Your task to perform on an android device: turn on the 24-hour format for clock Image 0: 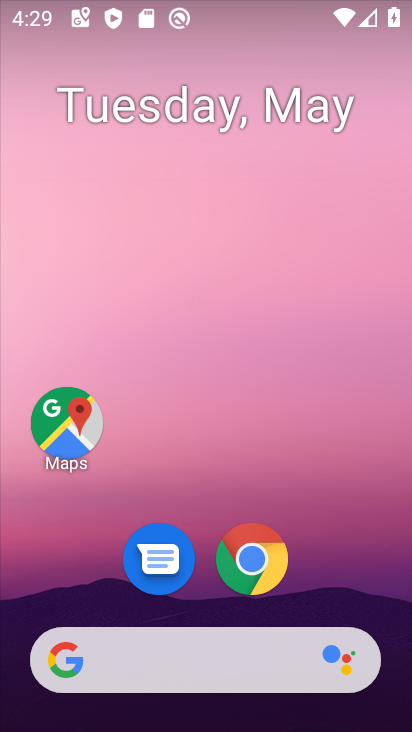
Step 0: drag from (318, 548) to (303, 25)
Your task to perform on an android device: turn on the 24-hour format for clock Image 1: 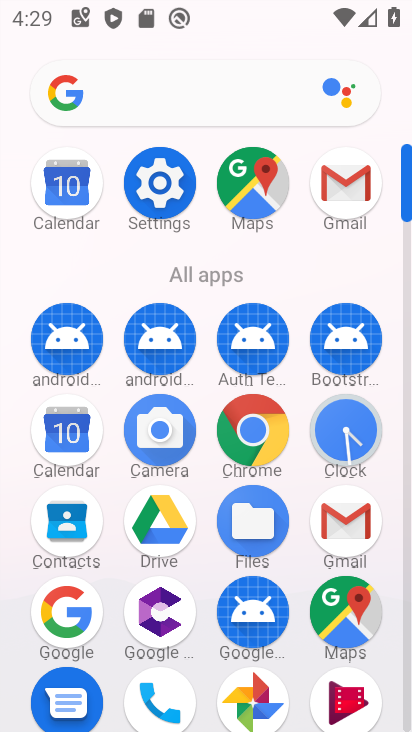
Step 1: click (360, 434)
Your task to perform on an android device: turn on the 24-hour format for clock Image 2: 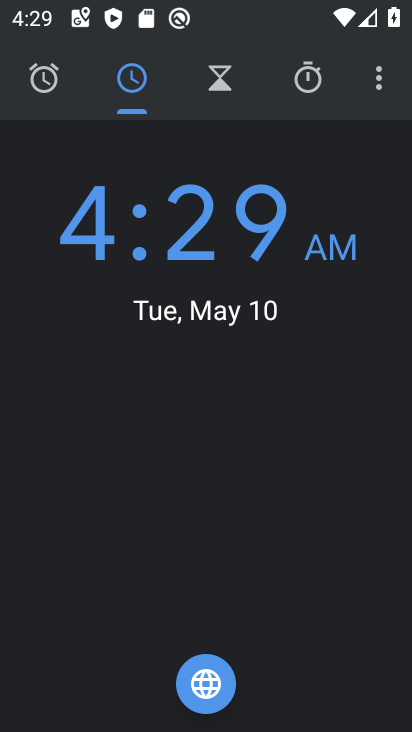
Step 2: click (373, 78)
Your task to perform on an android device: turn on the 24-hour format for clock Image 3: 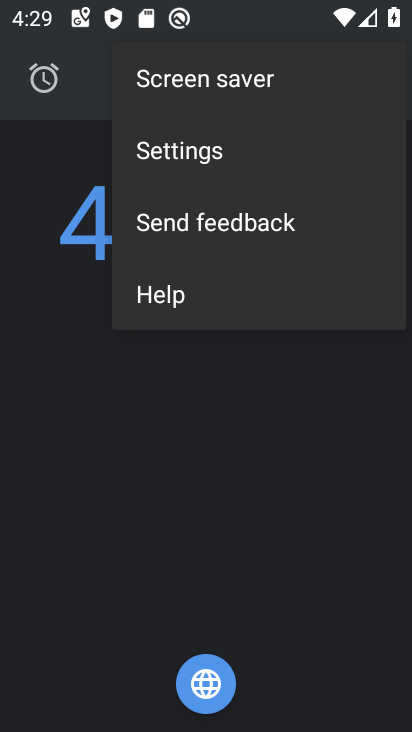
Step 3: click (213, 160)
Your task to perform on an android device: turn on the 24-hour format for clock Image 4: 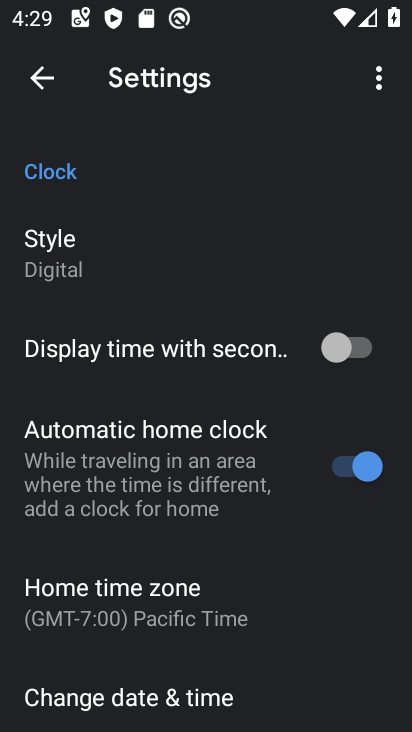
Step 4: drag from (193, 650) to (177, 285)
Your task to perform on an android device: turn on the 24-hour format for clock Image 5: 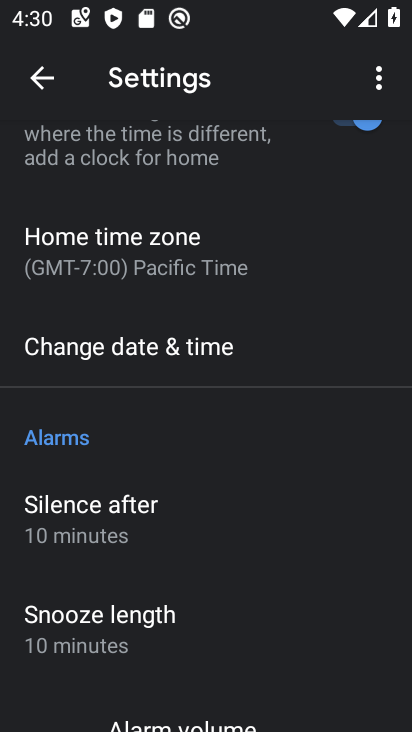
Step 5: click (162, 339)
Your task to perform on an android device: turn on the 24-hour format for clock Image 6: 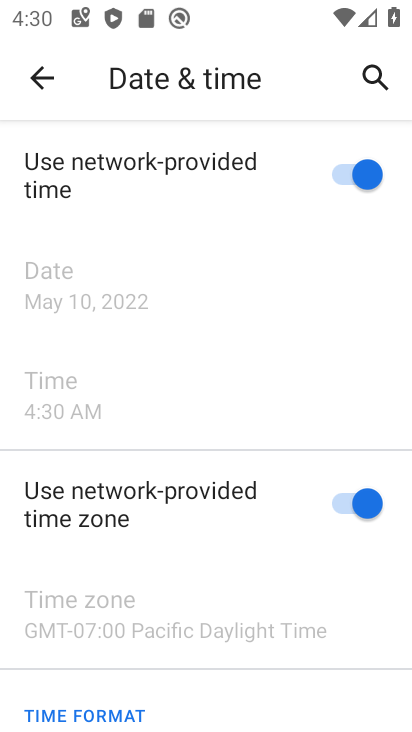
Step 6: drag from (196, 678) to (181, 280)
Your task to perform on an android device: turn on the 24-hour format for clock Image 7: 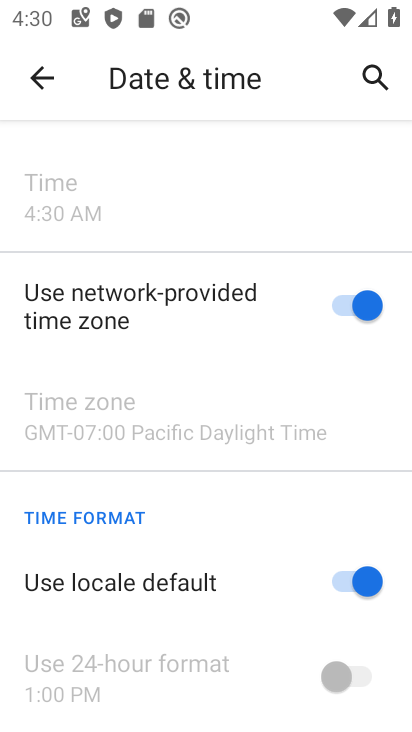
Step 7: click (359, 582)
Your task to perform on an android device: turn on the 24-hour format for clock Image 8: 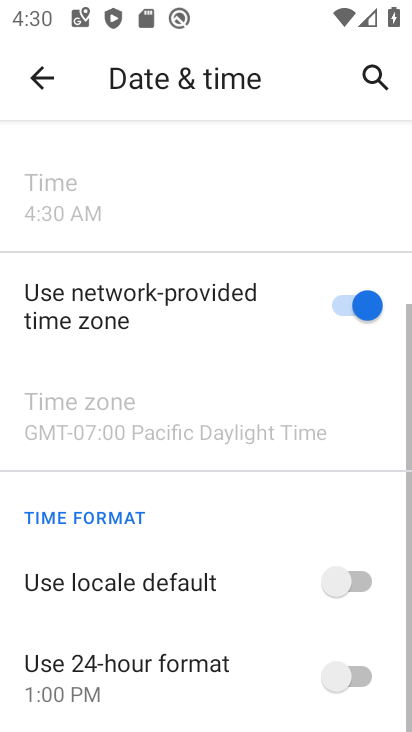
Step 8: click (334, 676)
Your task to perform on an android device: turn on the 24-hour format for clock Image 9: 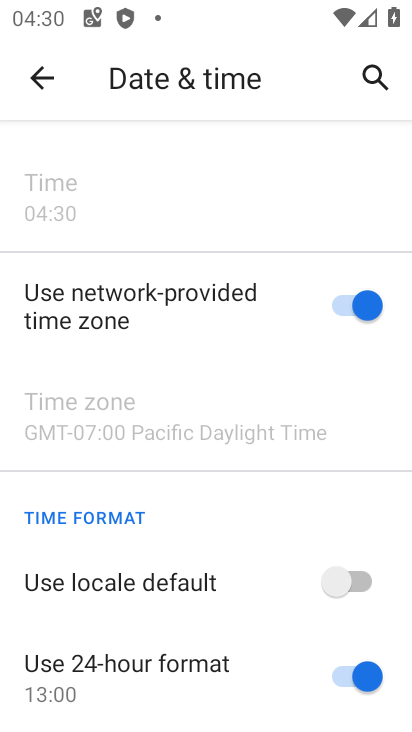
Step 9: task complete